Your task to perform on an android device: allow cookies in the chrome app Image 0: 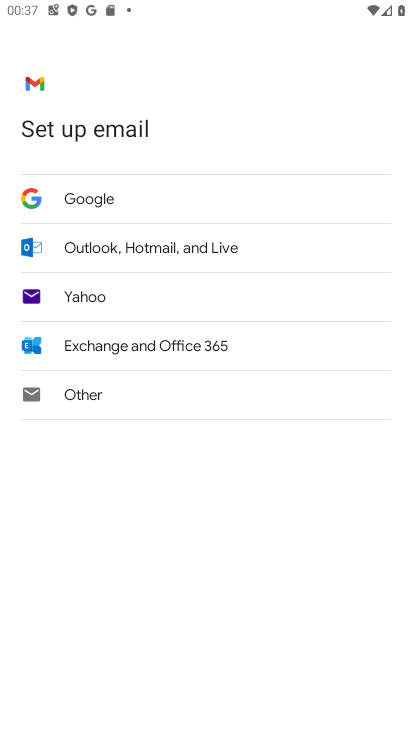
Step 0: press home button
Your task to perform on an android device: allow cookies in the chrome app Image 1: 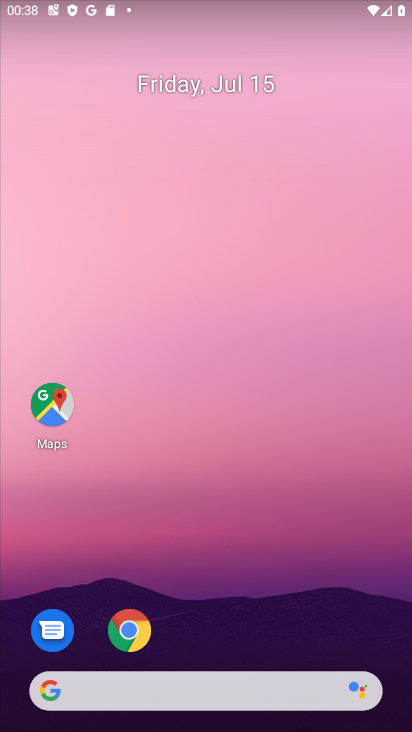
Step 1: click (139, 641)
Your task to perform on an android device: allow cookies in the chrome app Image 2: 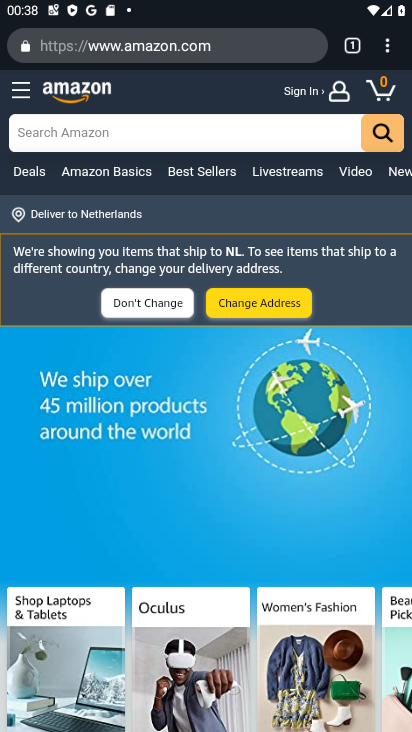
Step 2: click (381, 43)
Your task to perform on an android device: allow cookies in the chrome app Image 3: 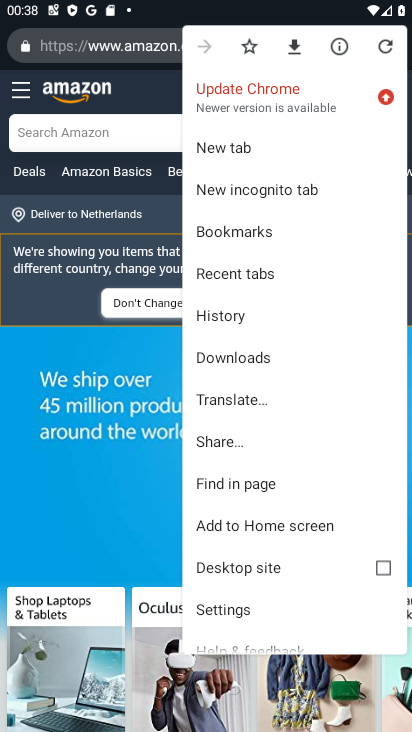
Step 3: click (265, 620)
Your task to perform on an android device: allow cookies in the chrome app Image 4: 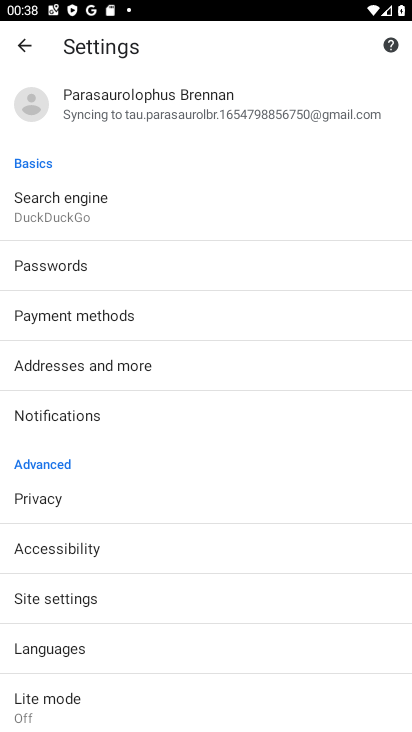
Step 4: task complete